Your task to perform on an android device: turn on improve location accuracy Image 0: 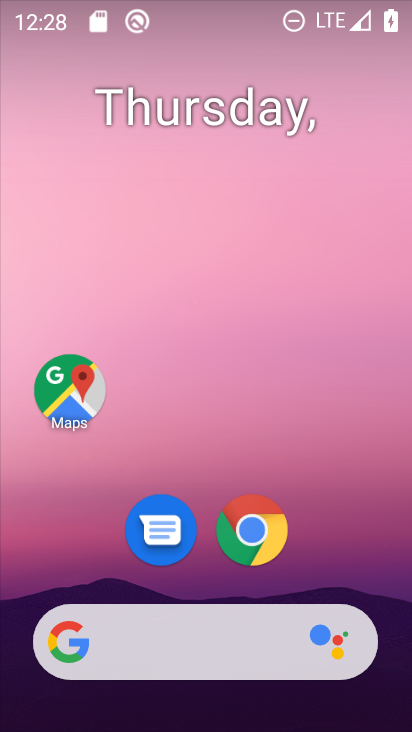
Step 0: drag from (172, 639) to (137, 11)
Your task to perform on an android device: turn on improve location accuracy Image 1: 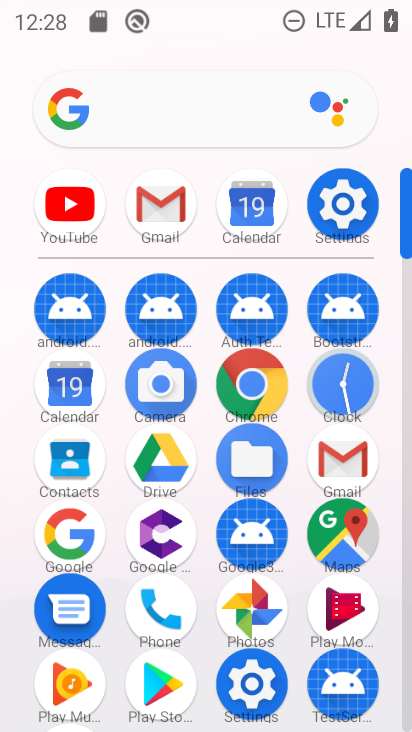
Step 1: click (344, 197)
Your task to perform on an android device: turn on improve location accuracy Image 2: 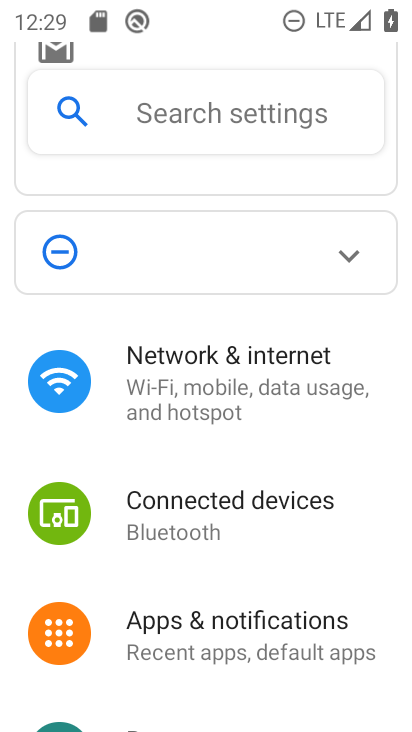
Step 2: drag from (183, 679) to (209, 151)
Your task to perform on an android device: turn on improve location accuracy Image 3: 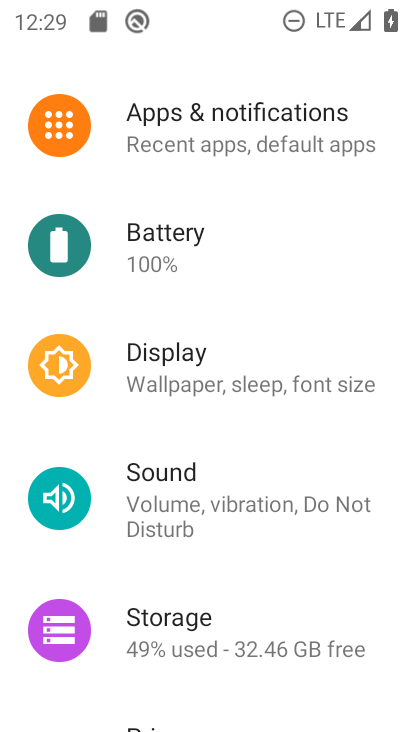
Step 3: drag from (178, 638) to (167, 91)
Your task to perform on an android device: turn on improve location accuracy Image 4: 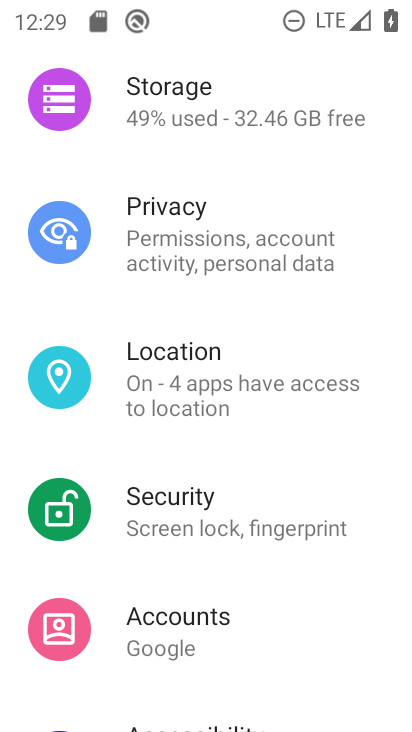
Step 4: click (170, 394)
Your task to perform on an android device: turn on improve location accuracy Image 5: 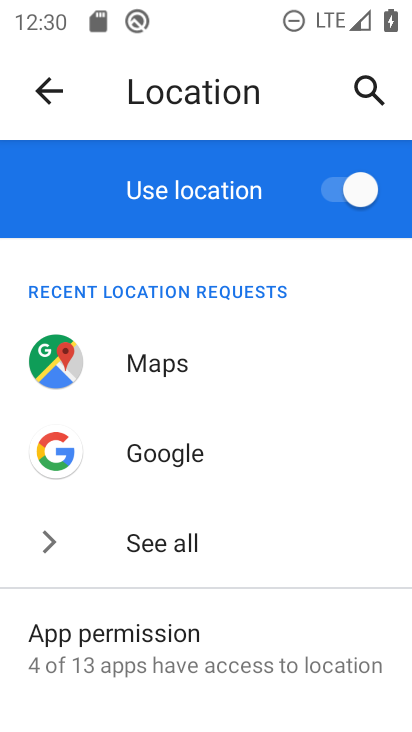
Step 5: drag from (179, 617) to (184, 130)
Your task to perform on an android device: turn on improve location accuracy Image 6: 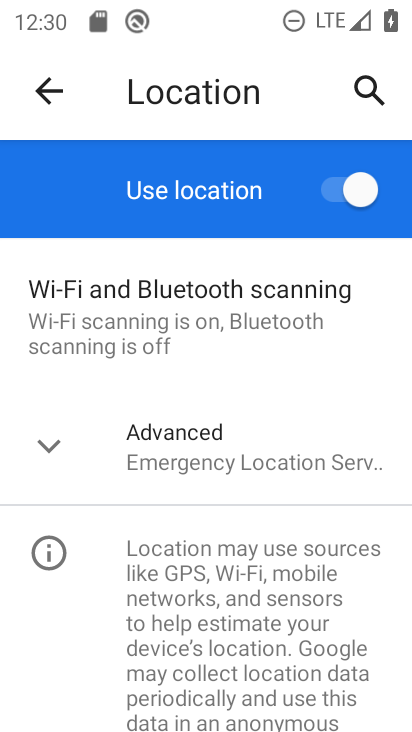
Step 6: click (152, 460)
Your task to perform on an android device: turn on improve location accuracy Image 7: 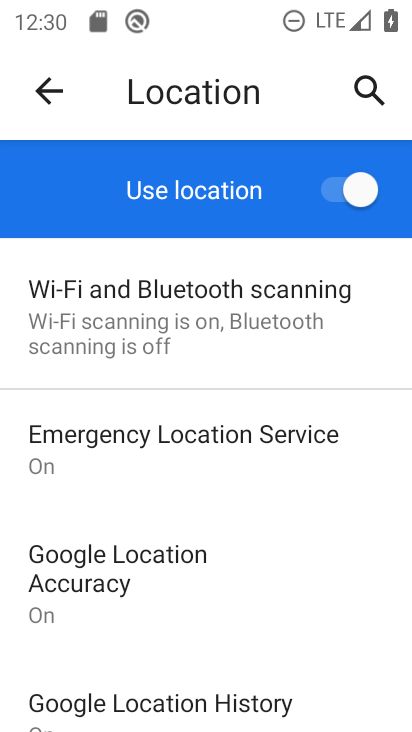
Step 7: click (111, 592)
Your task to perform on an android device: turn on improve location accuracy Image 8: 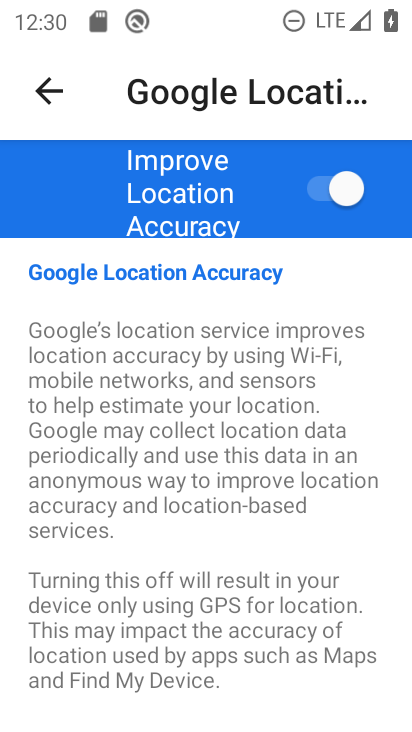
Step 8: task complete